Your task to perform on an android device: turn notification dots on Image 0: 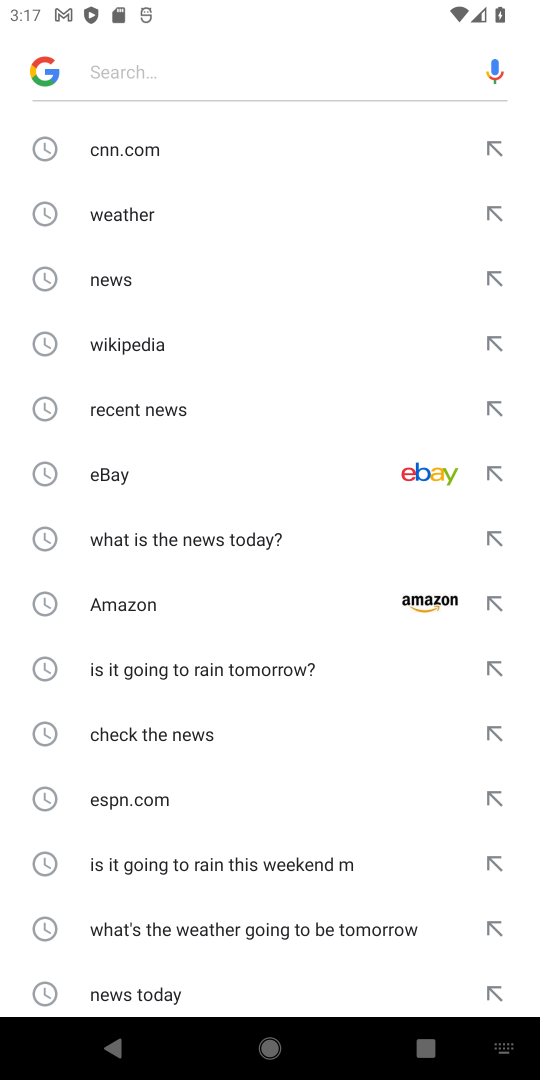
Step 0: press home button
Your task to perform on an android device: turn notification dots on Image 1: 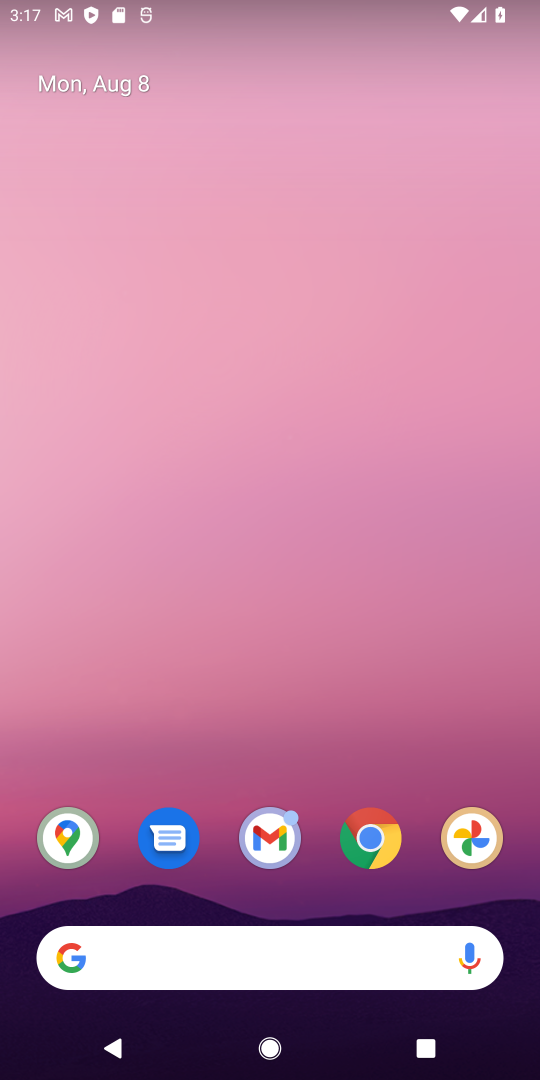
Step 1: drag from (204, 963) to (339, 416)
Your task to perform on an android device: turn notification dots on Image 2: 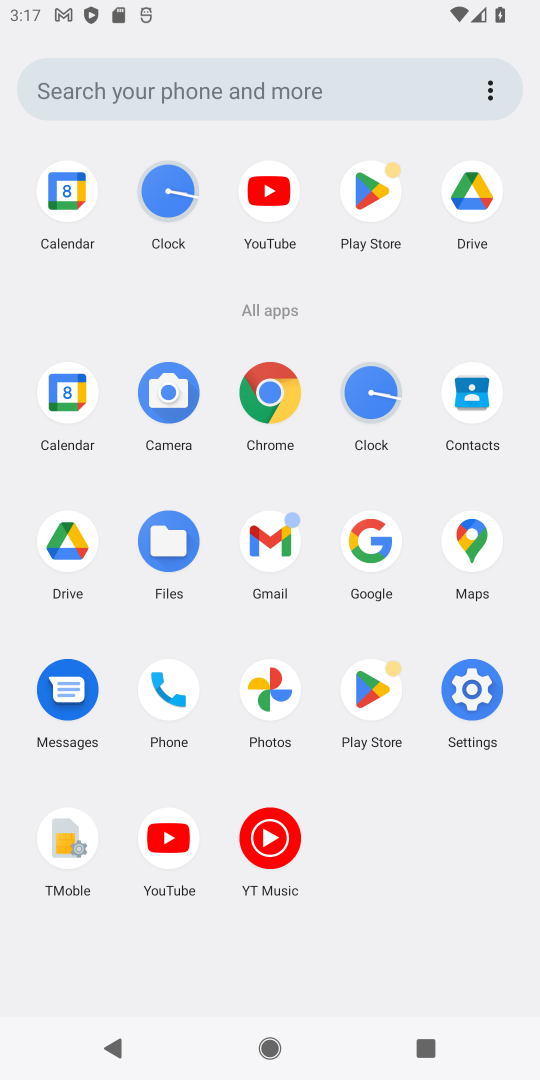
Step 2: click (470, 687)
Your task to perform on an android device: turn notification dots on Image 3: 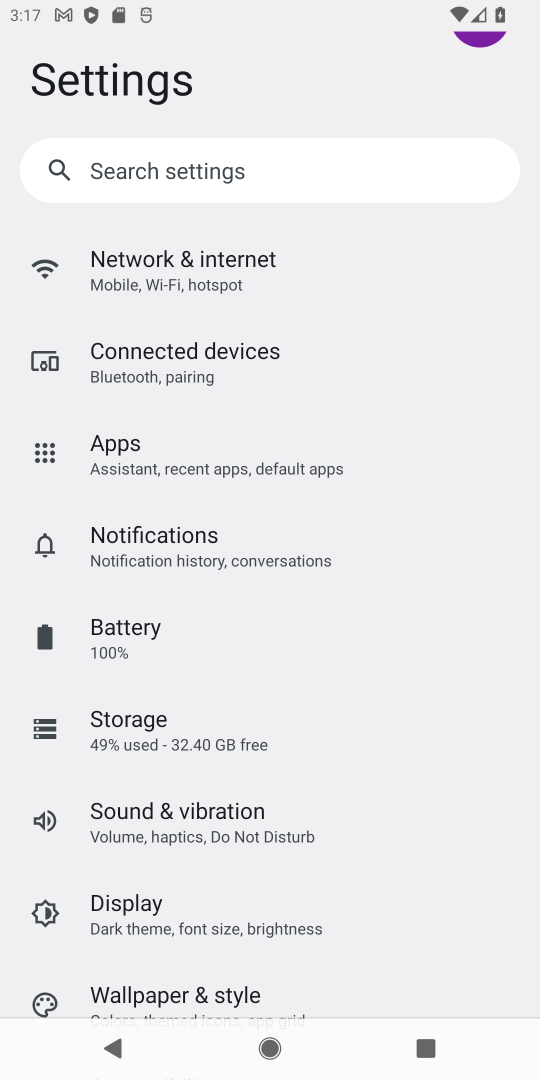
Step 3: click (153, 546)
Your task to perform on an android device: turn notification dots on Image 4: 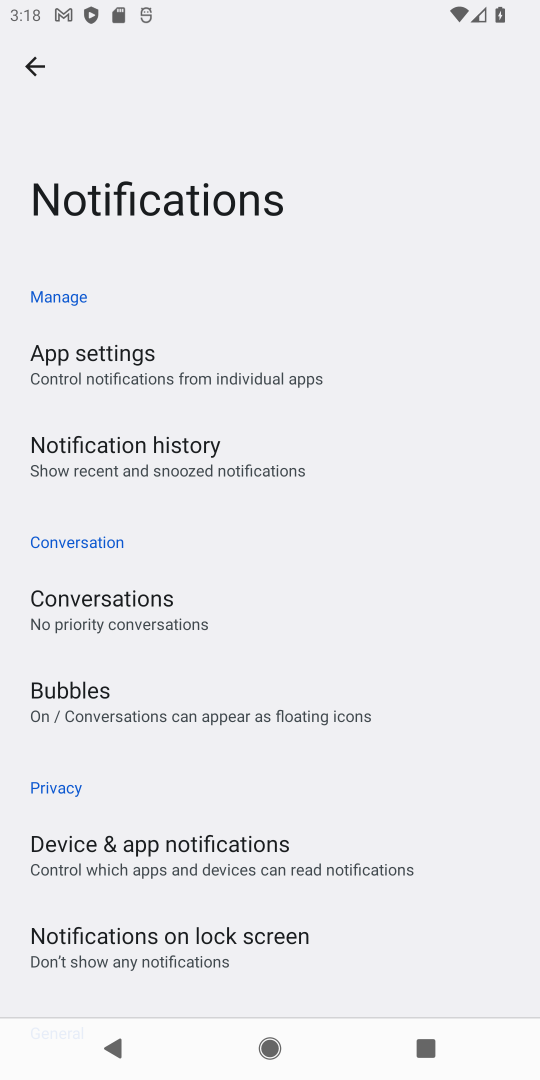
Step 4: task complete